Your task to perform on an android device: set the stopwatch Image 0: 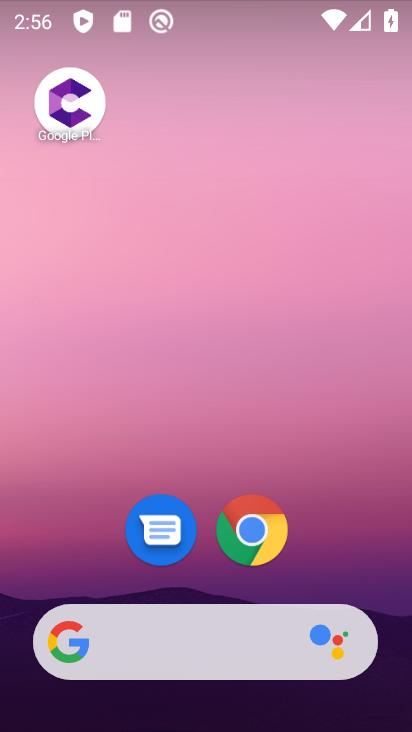
Step 0: drag from (140, 568) to (269, 148)
Your task to perform on an android device: set the stopwatch Image 1: 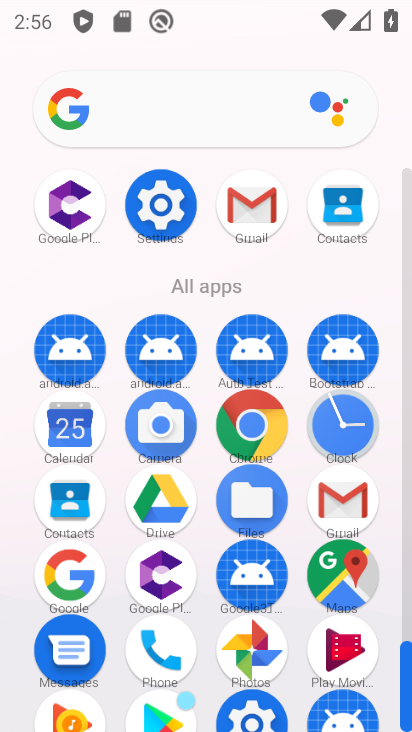
Step 1: click (352, 419)
Your task to perform on an android device: set the stopwatch Image 2: 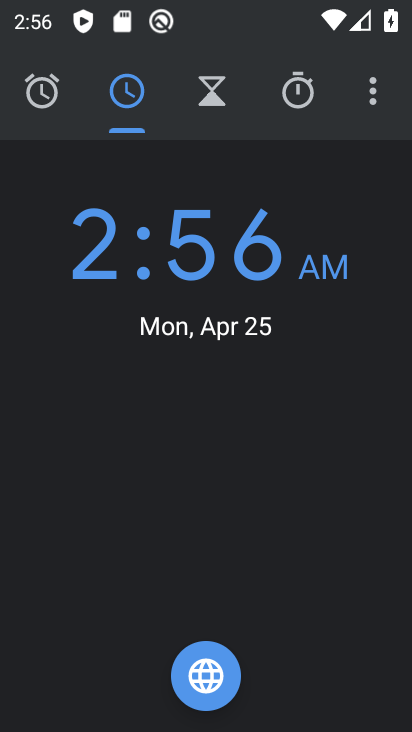
Step 2: click (295, 97)
Your task to perform on an android device: set the stopwatch Image 3: 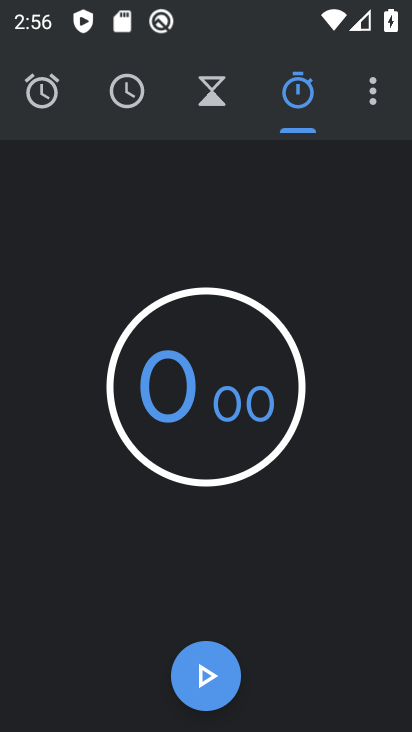
Step 3: click (204, 685)
Your task to perform on an android device: set the stopwatch Image 4: 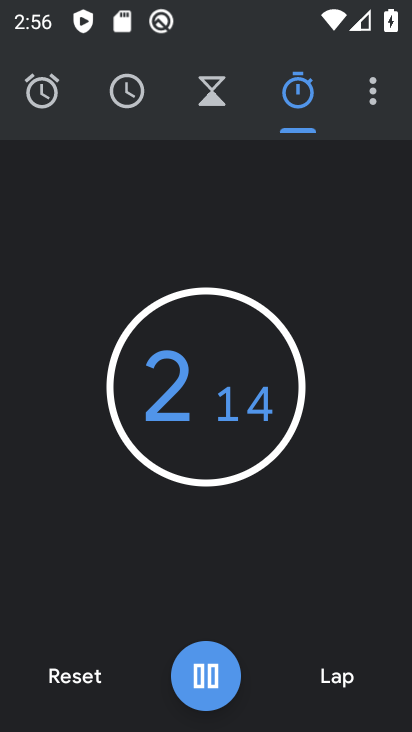
Step 4: task complete